Your task to perform on an android device: Open Android settings Image 0: 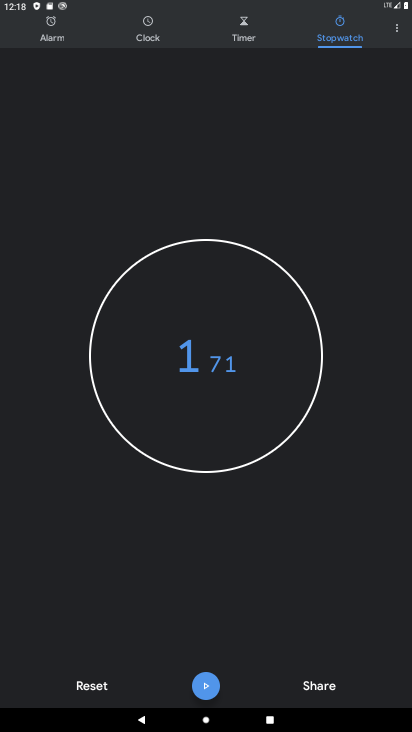
Step 0: press home button
Your task to perform on an android device: Open Android settings Image 1: 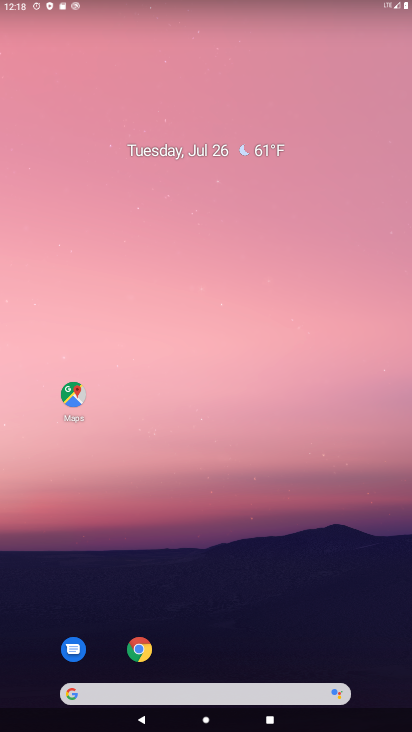
Step 1: drag from (198, 674) to (140, 58)
Your task to perform on an android device: Open Android settings Image 2: 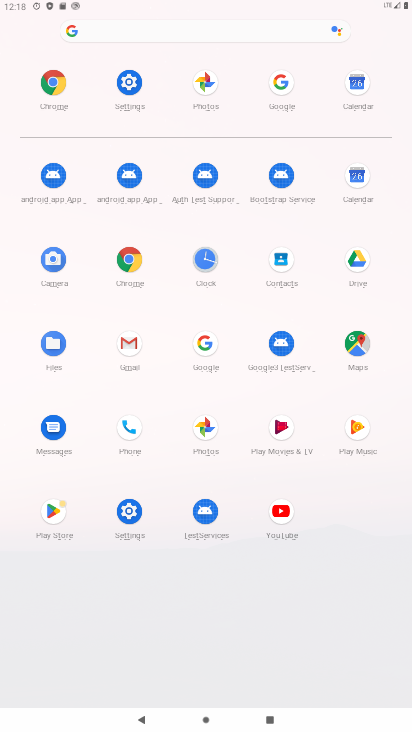
Step 2: click (136, 93)
Your task to perform on an android device: Open Android settings Image 3: 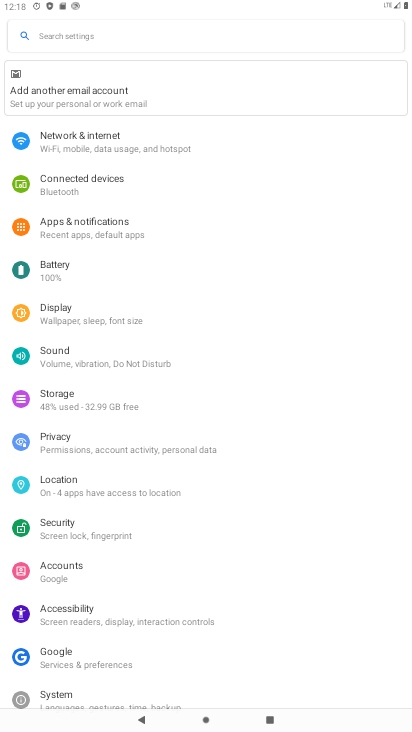
Step 3: task complete